Your task to perform on an android device: change text size in settings app Image 0: 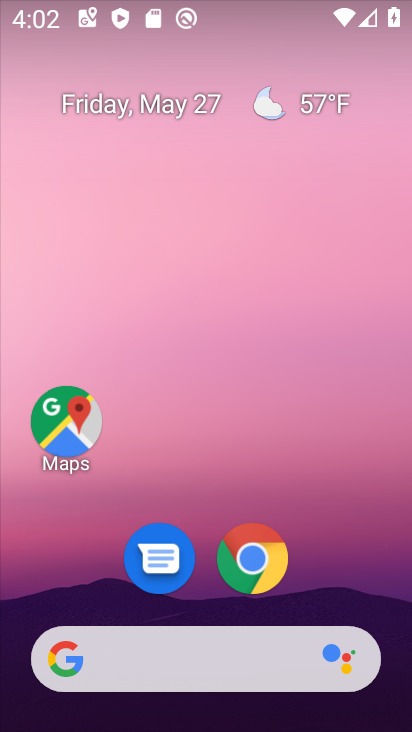
Step 0: click (369, 599)
Your task to perform on an android device: change text size in settings app Image 1: 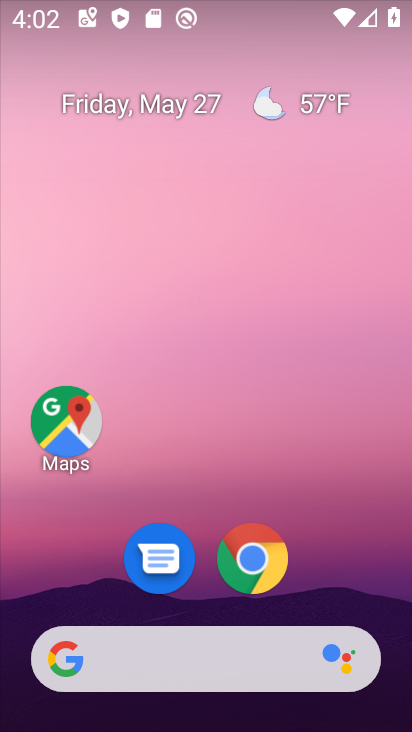
Step 1: drag from (369, 599) to (336, 121)
Your task to perform on an android device: change text size in settings app Image 2: 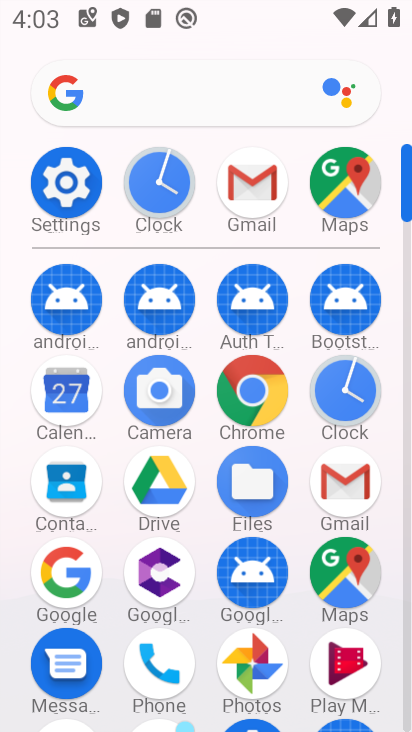
Step 2: click (52, 188)
Your task to perform on an android device: change text size in settings app Image 3: 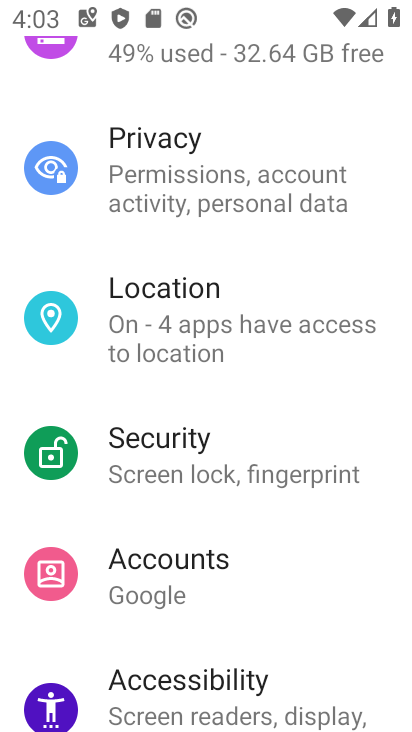
Step 3: drag from (235, 692) to (255, 315)
Your task to perform on an android device: change text size in settings app Image 4: 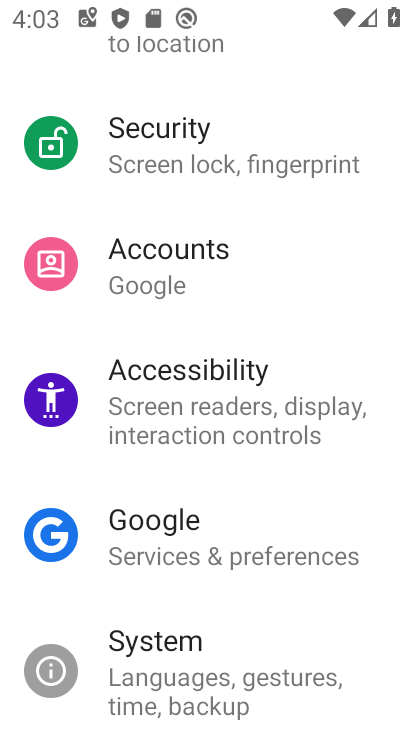
Step 4: drag from (203, 186) to (236, 681)
Your task to perform on an android device: change text size in settings app Image 5: 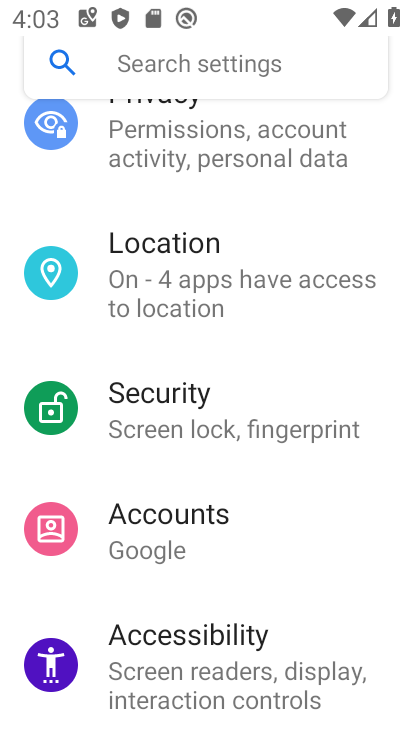
Step 5: drag from (233, 295) to (206, 700)
Your task to perform on an android device: change text size in settings app Image 6: 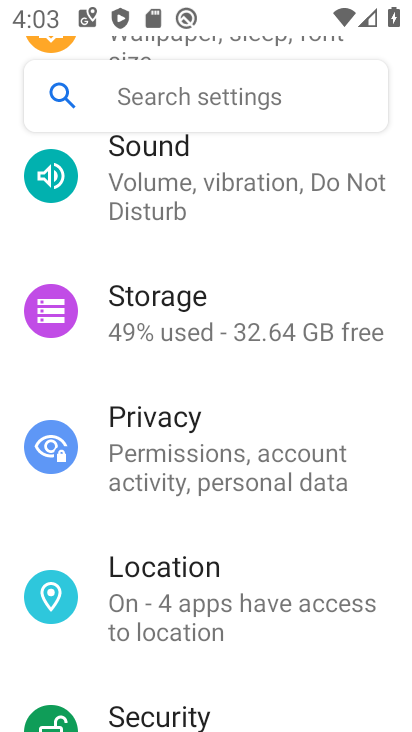
Step 6: drag from (192, 242) to (198, 558)
Your task to perform on an android device: change text size in settings app Image 7: 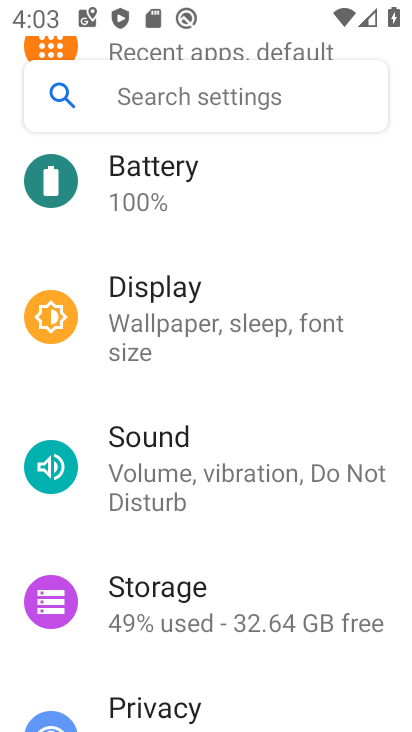
Step 7: click (260, 276)
Your task to perform on an android device: change text size in settings app Image 8: 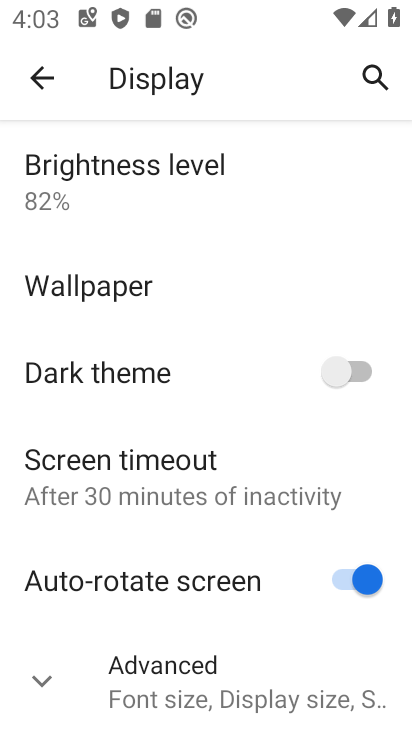
Step 8: click (220, 673)
Your task to perform on an android device: change text size in settings app Image 9: 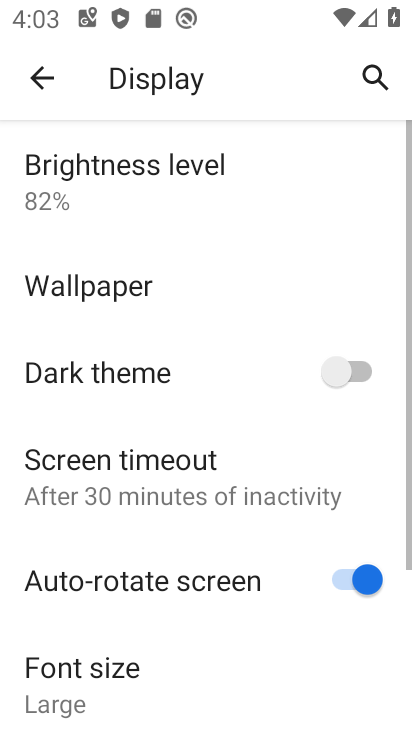
Step 9: drag from (220, 673) to (212, 279)
Your task to perform on an android device: change text size in settings app Image 10: 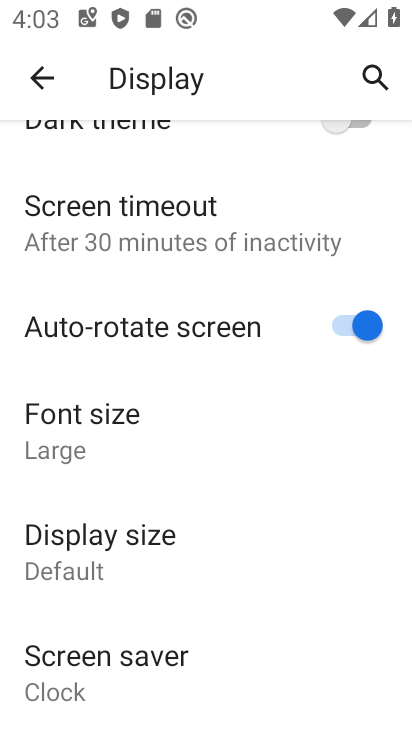
Step 10: click (167, 586)
Your task to perform on an android device: change text size in settings app Image 11: 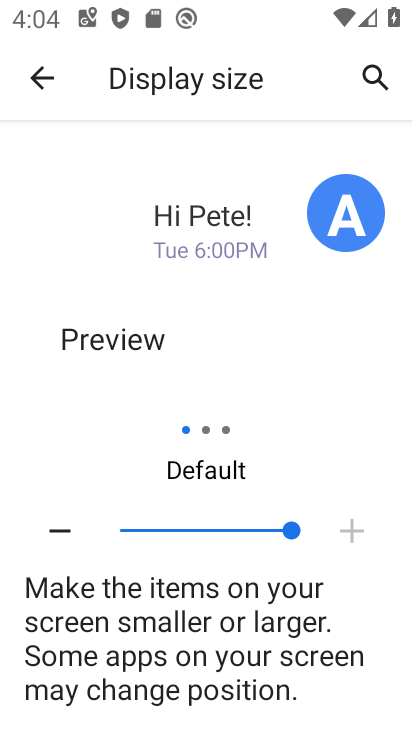
Step 11: click (295, 615)
Your task to perform on an android device: change text size in settings app Image 12: 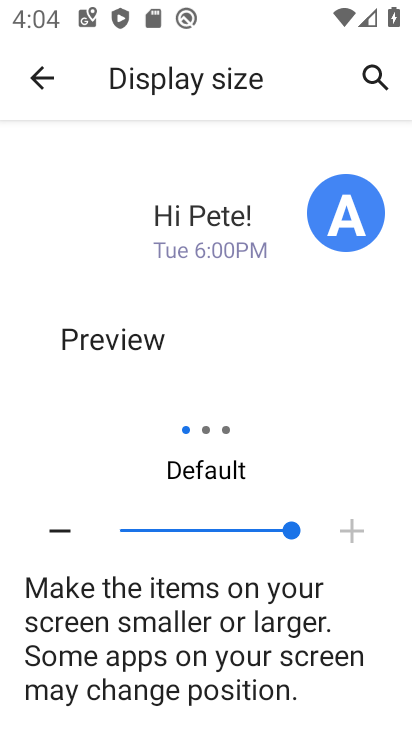
Step 12: click (52, 68)
Your task to perform on an android device: change text size in settings app Image 13: 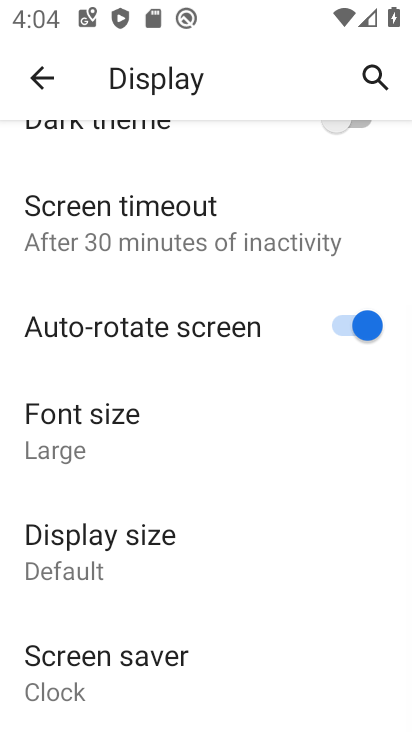
Step 13: click (182, 441)
Your task to perform on an android device: change text size in settings app Image 14: 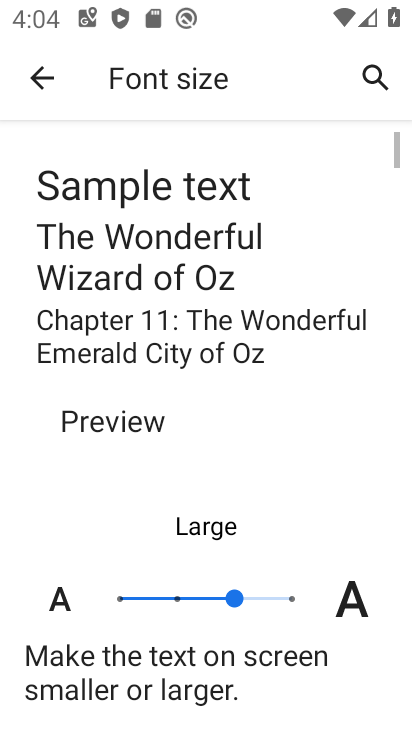
Step 14: click (140, 590)
Your task to perform on an android device: change text size in settings app Image 15: 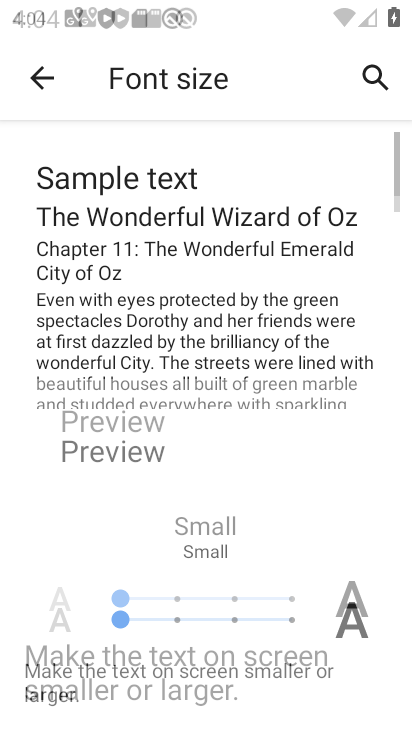
Step 15: task complete